Your task to perform on an android device: Go to notification settings Image 0: 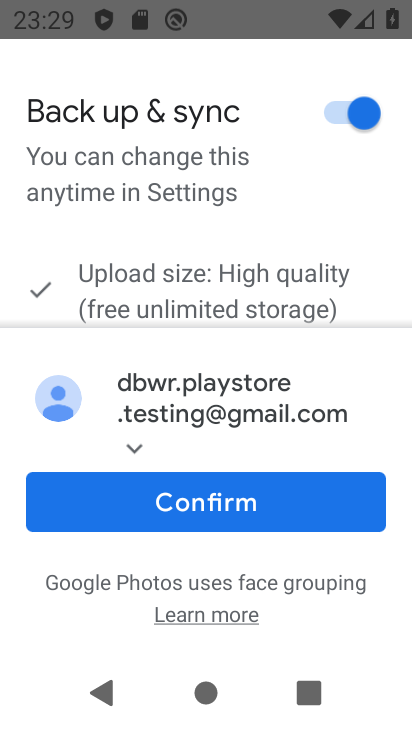
Step 0: press home button
Your task to perform on an android device: Go to notification settings Image 1: 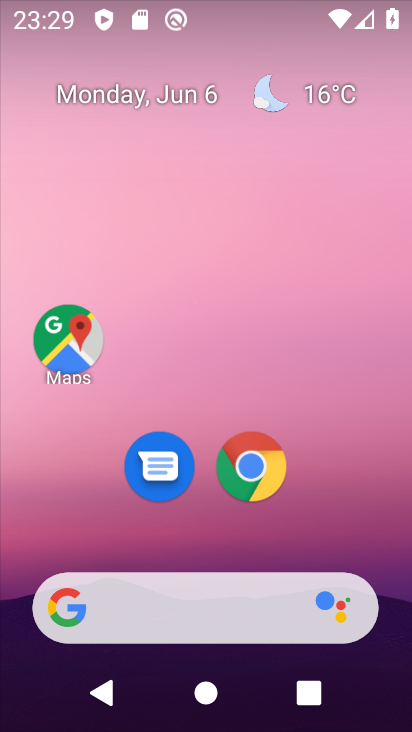
Step 1: drag from (316, 502) to (306, 18)
Your task to perform on an android device: Go to notification settings Image 2: 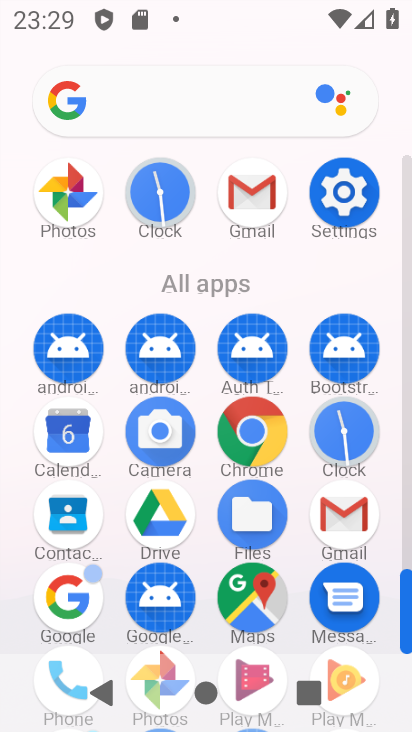
Step 2: click (340, 201)
Your task to perform on an android device: Go to notification settings Image 3: 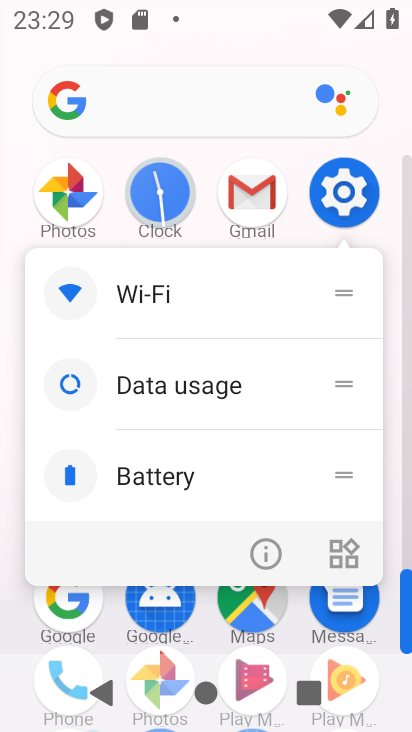
Step 3: click (334, 194)
Your task to perform on an android device: Go to notification settings Image 4: 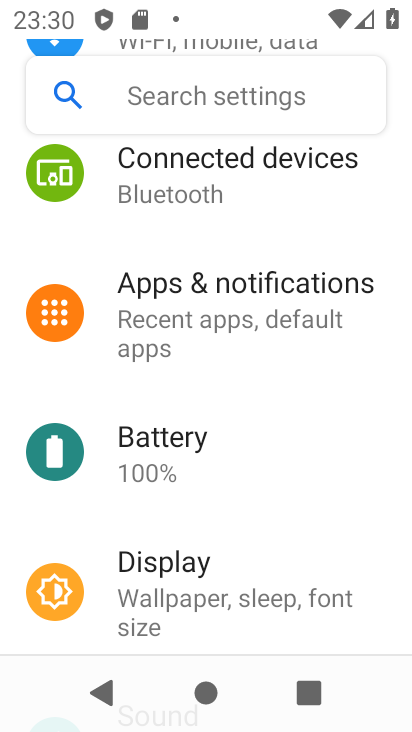
Step 4: click (240, 312)
Your task to perform on an android device: Go to notification settings Image 5: 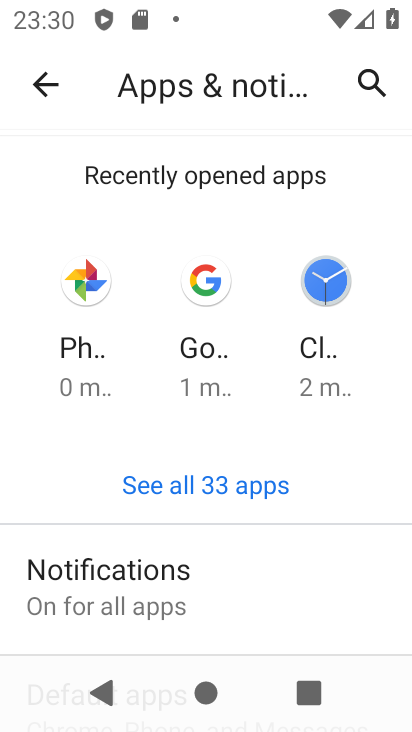
Step 5: click (173, 566)
Your task to perform on an android device: Go to notification settings Image 6: 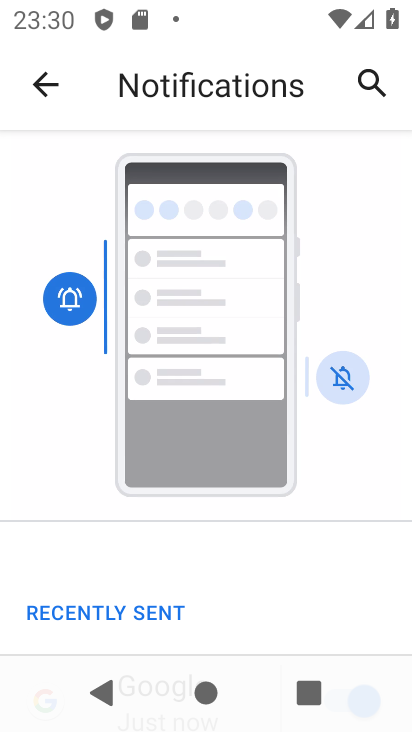
Step 6: task complete